Your task to perform on an android device: Open ESPN.com Image 0: 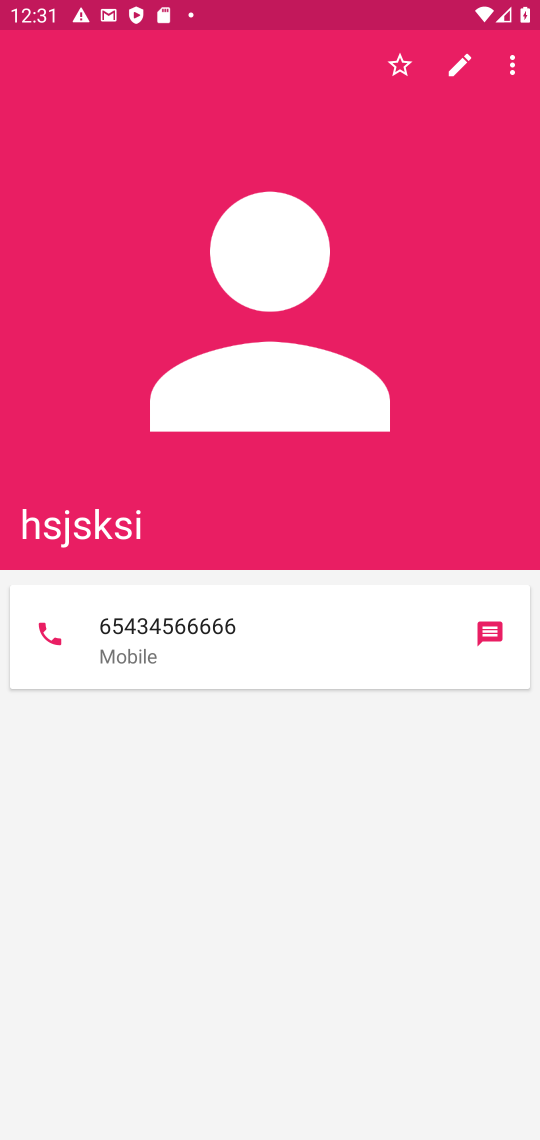
Step 0: press home button
Your task to perform on an android device: Open ESPN.com Image 1: 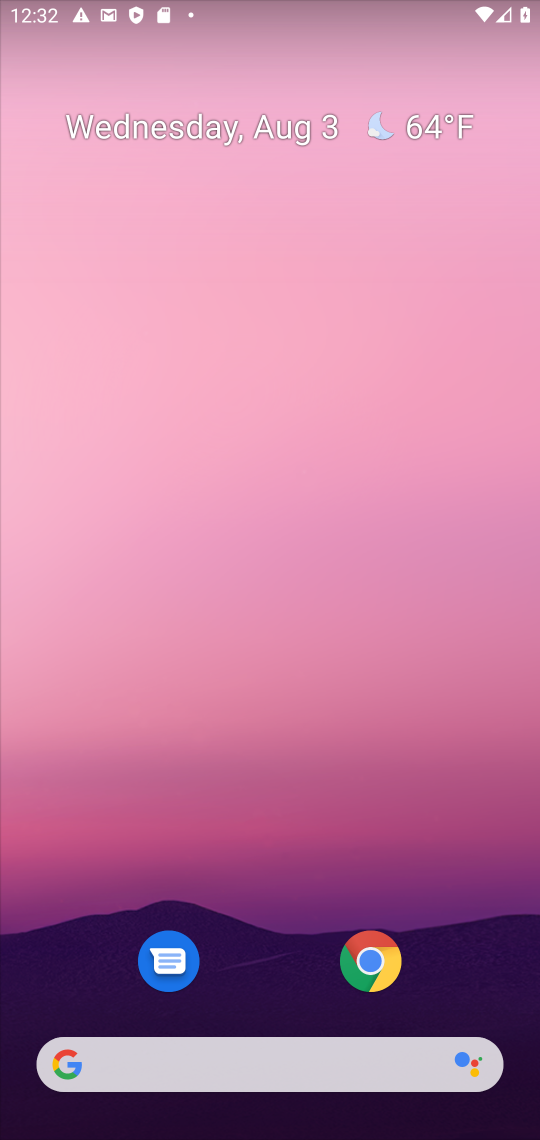
Step 1: click (374, 965)
Your task to perform on an android device: Open ESPN.com Image 2: 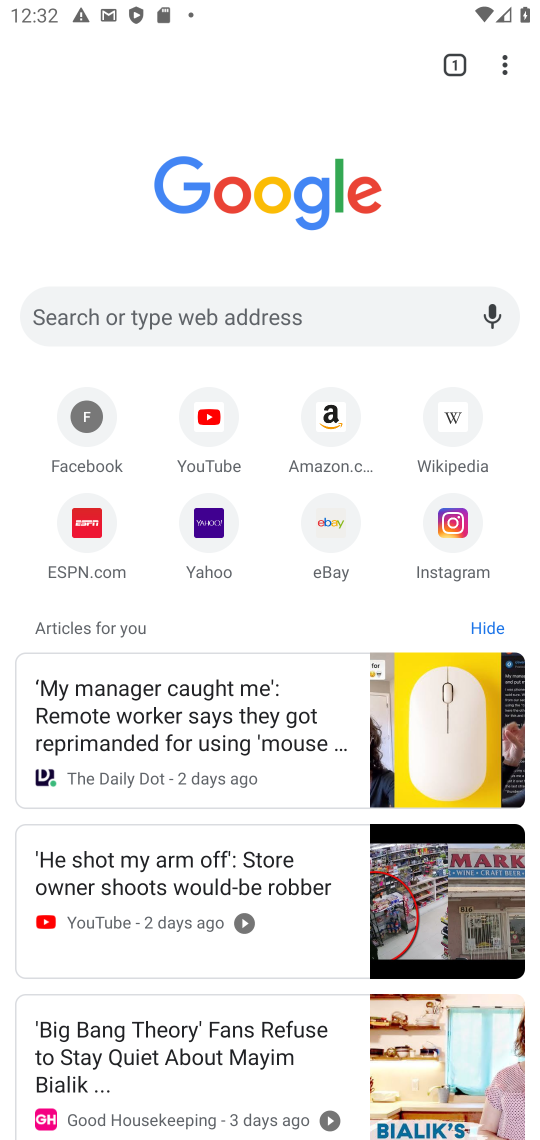
Step 2: click (80, 543)
Your task to perform on an android device: Open ESPN.com Image 3: 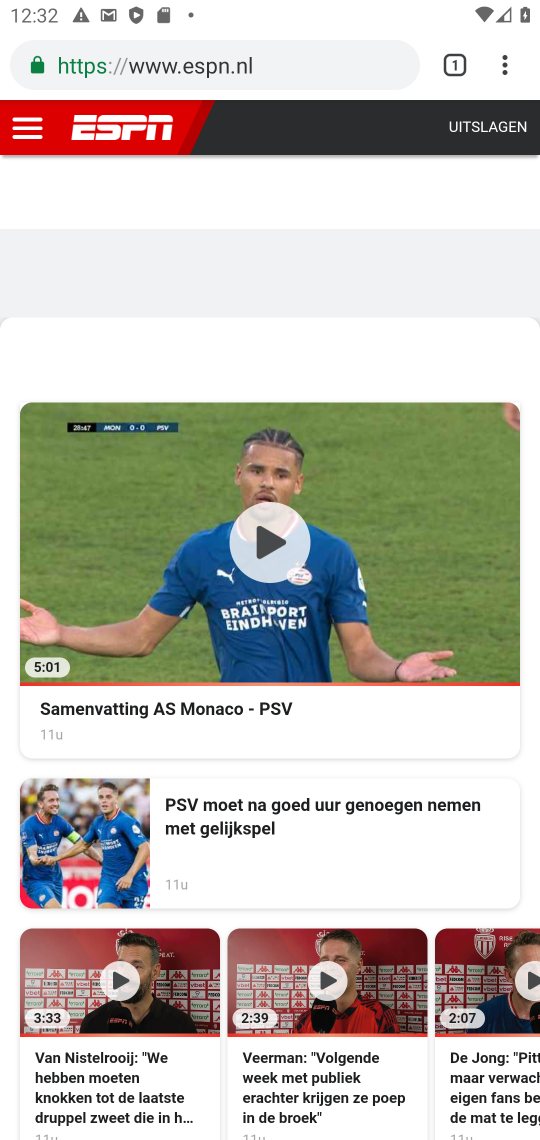
Step 3: task complete